Your task to perform on an android device: Open Chrome and go to settings Image 0: 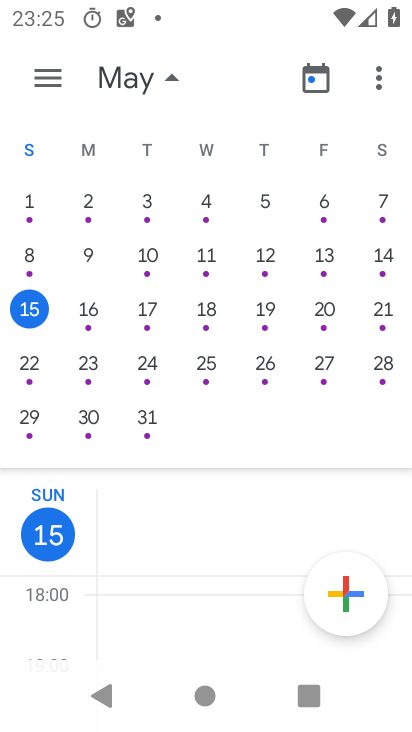
Step 0: press home button
Your task to perform on an android device: Open Chrome and go to settings Image 1: 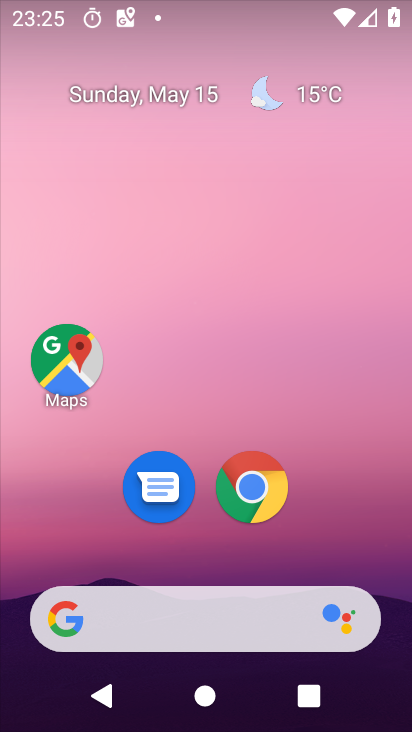
Step 1: click (256, 489)
Your task to perform on an android device: Open Chrome and go to settings Image 2: 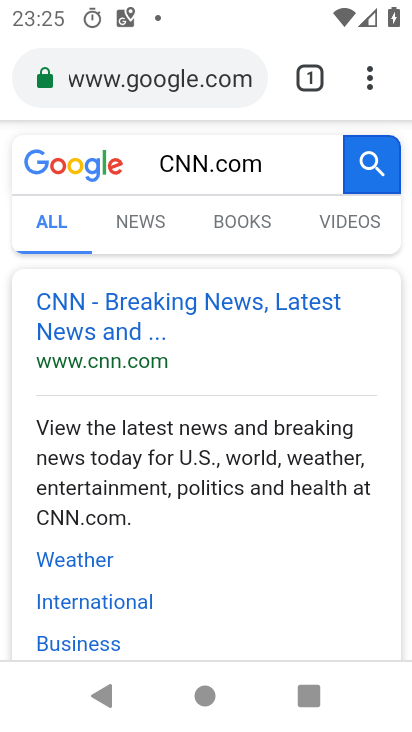
Step 2: click (366, 75)
Your task to perform on an android device: Open Chrome and go to settings Image 3: 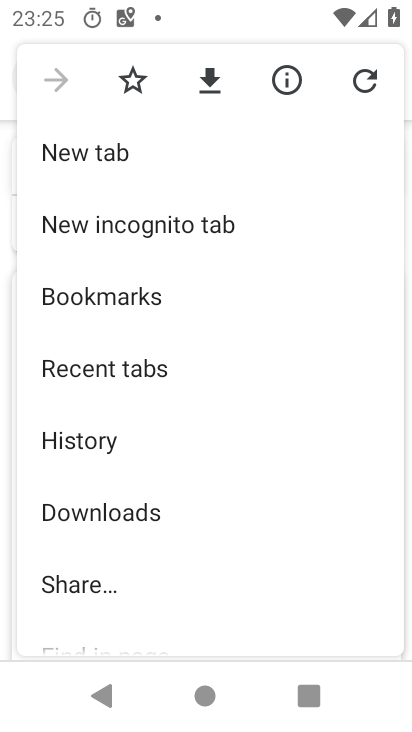
Step 3: drag from (207, 553) to (207, 353)
Your task to perform on an android device: Open Chrome and go to settings Image 4: 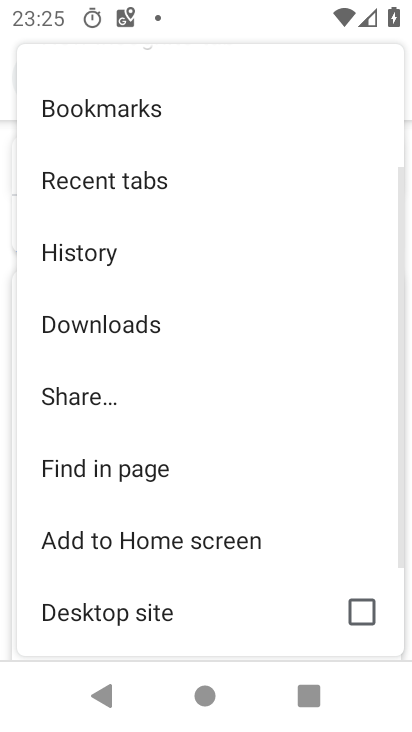
Step 4: drag from (271, 598) to (272, 355)
Your task to perform on an android device: Open Chrome and go to settings Image 5: 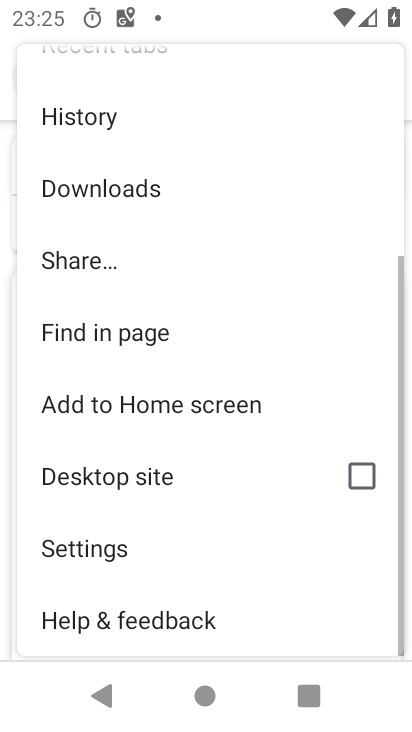
Step 5: click (101, 551)
Your task to perform on an android device: Open Chrome and go to settings Image 6: 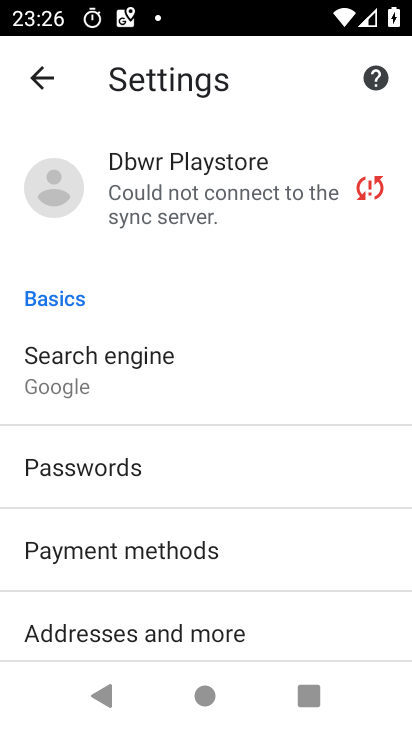
Step 6: task complete